Your task to perform on an android device: Open internet settings Image 0: 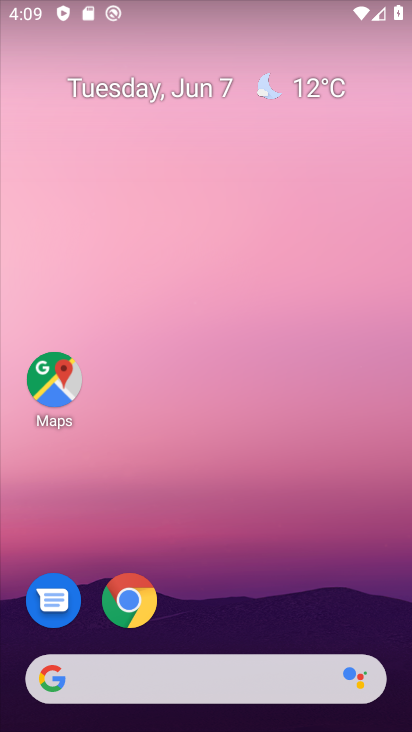
Step 0: drag from (223, 652) to (200, 131)
Your task to perform on an android device: Open internet settings Image 1: 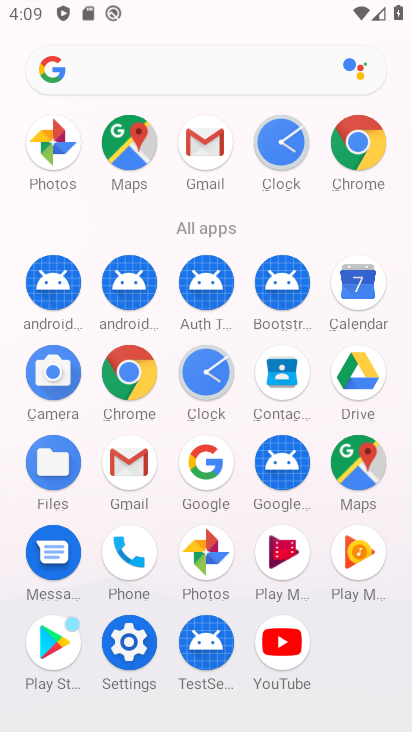
Step 1: click (133, 638)
Your task to perform on an android device: Open internet settings Image 2: 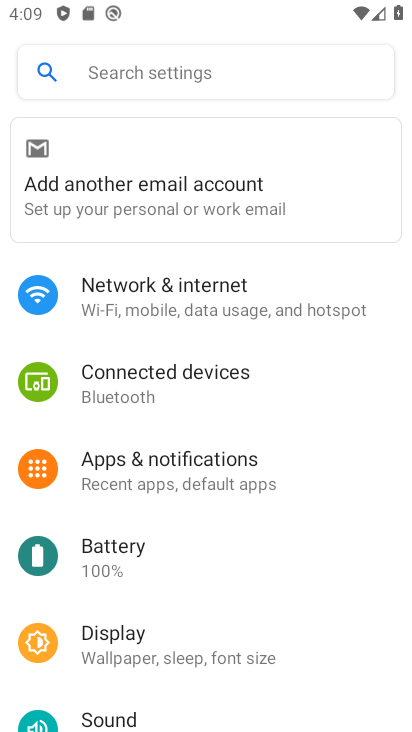
Step 2: click (177, 287)
Your task to perform on an android device: Open internet settings Image 3: 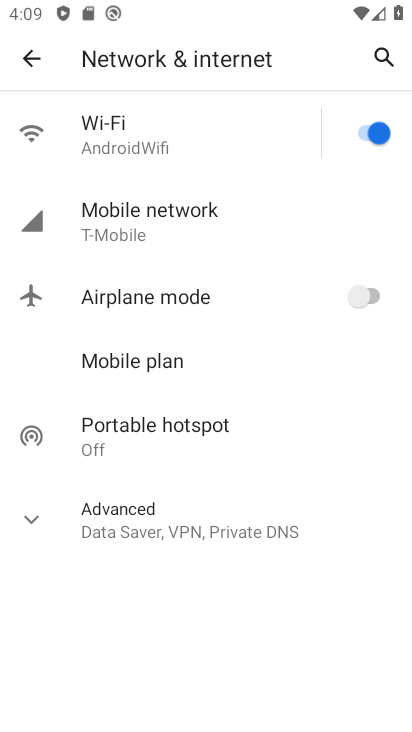
Step 3: click (161, 531)
Your task to perform on an android device: Open internet settings Image 4: 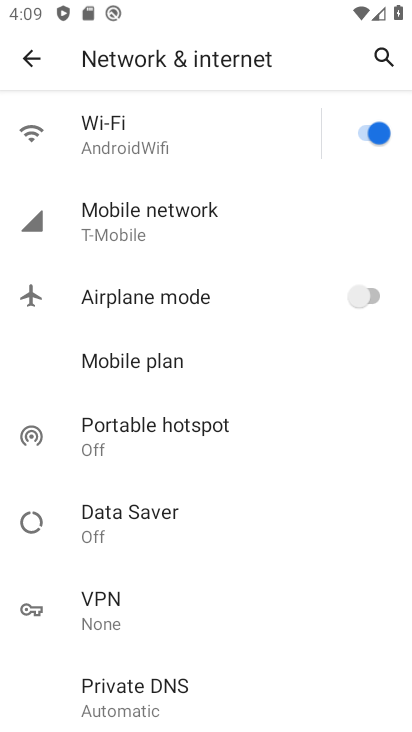
Step 4: task complete